Your task to perform on an android device: turn on the 24-hour format for clock Image 0: 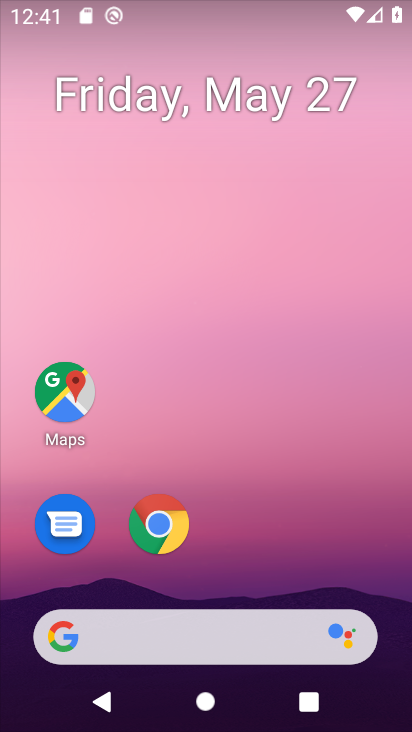
Step 0: drag from (270, 558) to (273, 70)
Your task to perform on an android device: turn on the 24-hour format for clock Image 1: 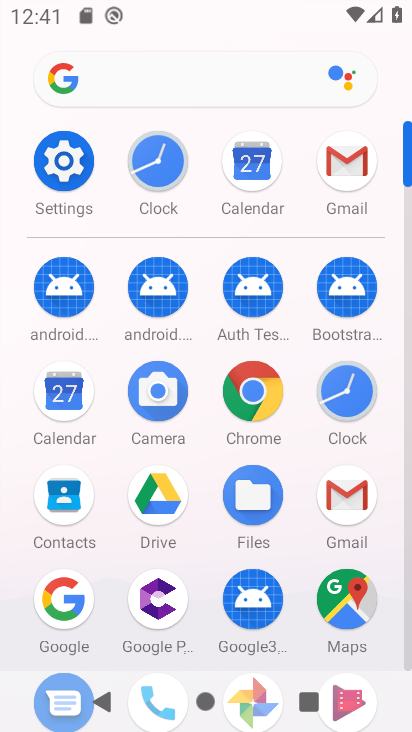
Step 1: click (153, 158)
Your task to perform on an android device: turn on the 24-hour format for clock Image 2: 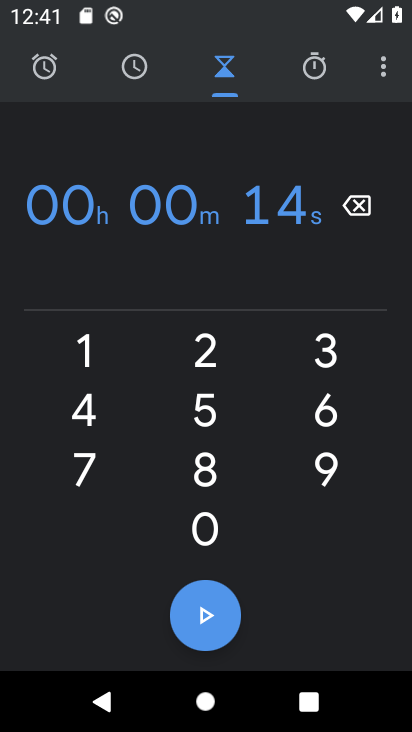
Step 2: click (379, 69)
Your task to perform on an android device: turn on the 24-hour format for clock Image 3: 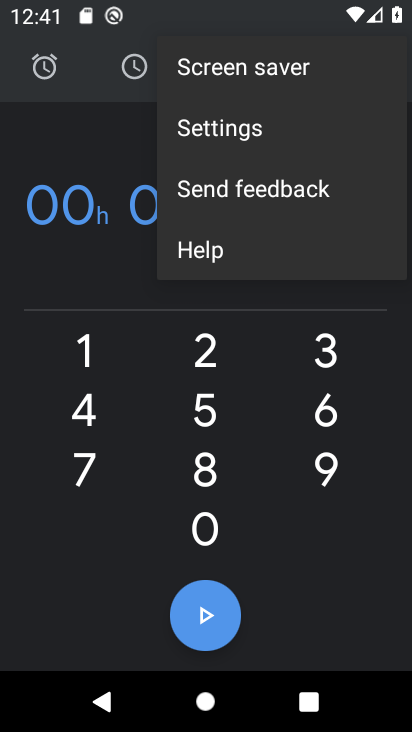
Step 3: click (322, 122)
Your task to perform on an android device: turn on the 24-hour format for clock Image 4: 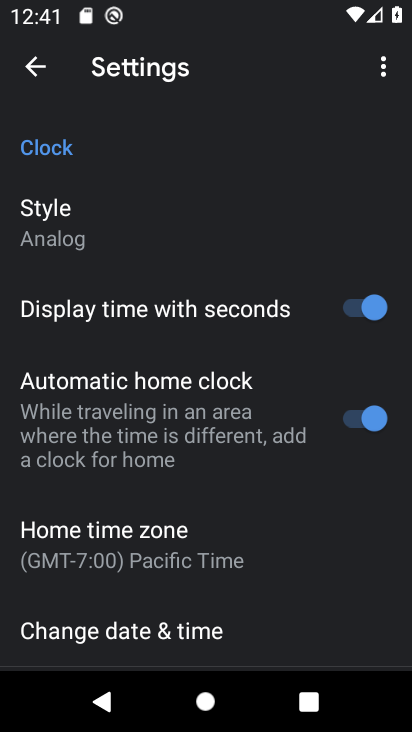
Step 4: drag from (308, 551) to (302, 281)
Your task to perform on an android device: turn on the 24-hour format for clock Image 5: 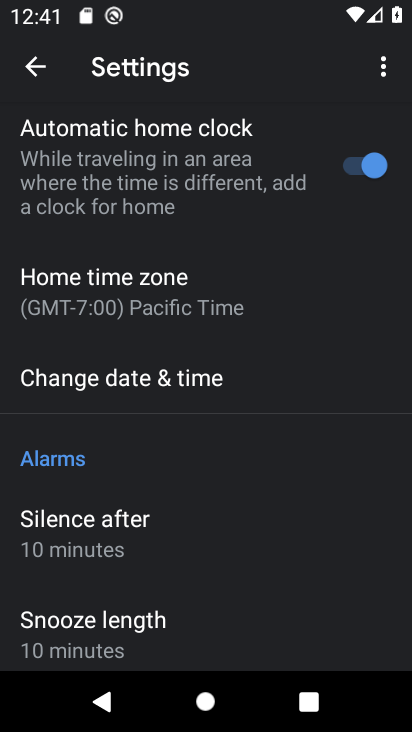
Step 5: click (287, 379)
Your task to perform on an android device: turn on the 24-hour format for clock Image 6: 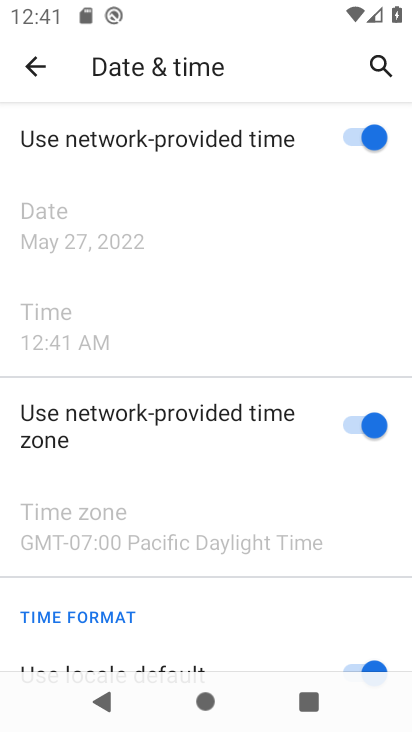
Step 6: drag from (290, 494) to (284, 254)
Your task to perform on an android device: turn on the 24-hour format for clock Image 7: 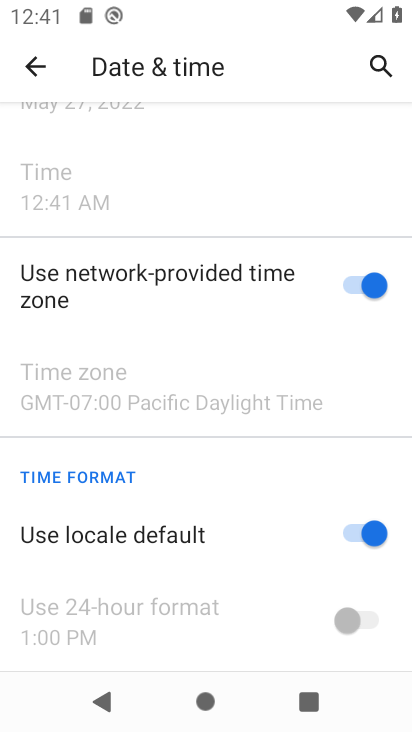
Step 7: click (350, 525)
Your task to perform on an android device: turn on the 24-hour format for clock Image 8: 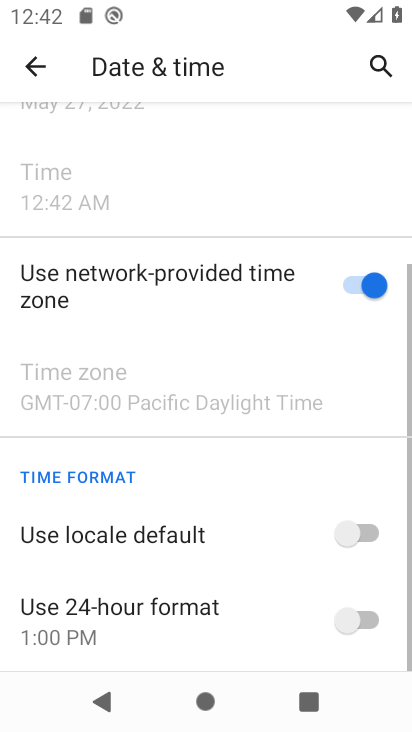
Step 8: click (365, 620)
Your task to perform on an android device: turn on the 24-hour format for clock Image 9: 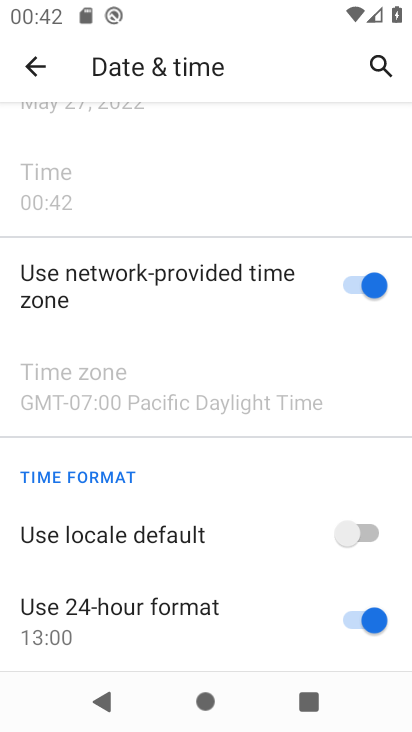
Step 9: task complete